Your task to perform on an android device: make emails show in primary in the gmail app Image 0: 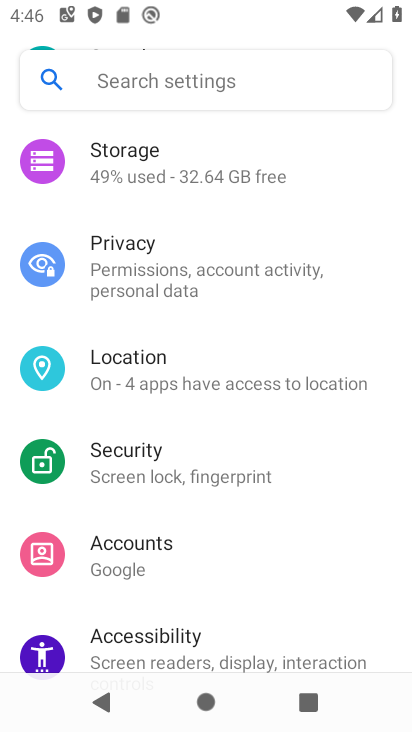
Step 0: press home button
Your task to perform on an android device: make emails show in primary in the gmail app Image 1: 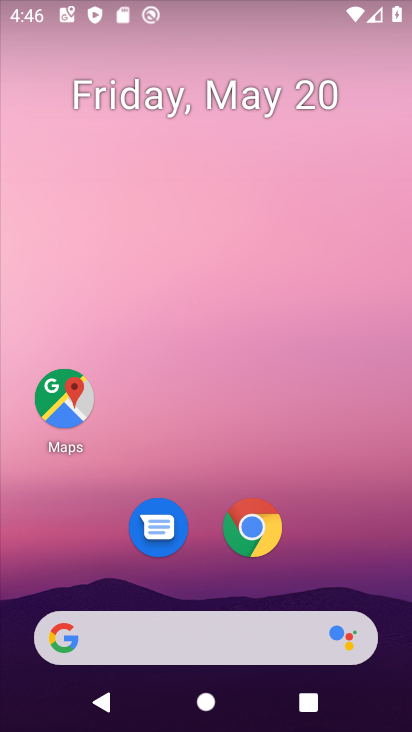
Step 1: drag from (138, 601) to (207, 134)
Your task to perform on an android device: make emails show in primary in the gmail app Image 2: 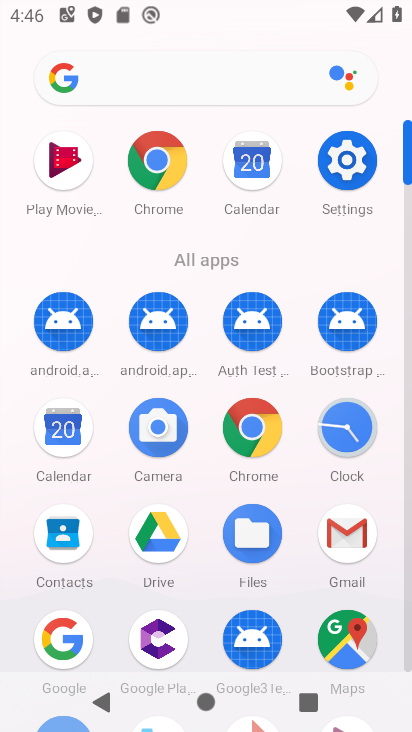
Step 2: click (336, 542)
Your task to perform on an android device: make emails show in primary in the gmail app Image 3: 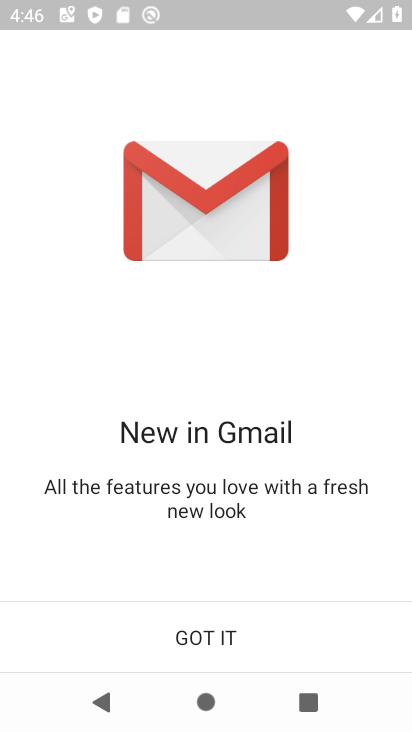
Step 3: click (193, 647)
Your task to perform on an android device: make emails show in primary in the gmail app Image 4: 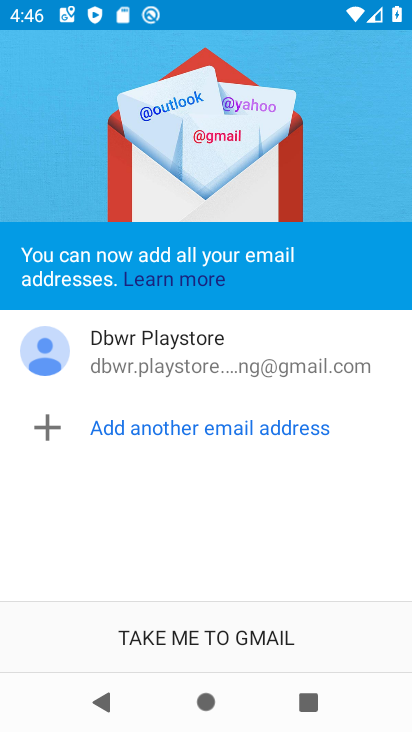
Step 4: click (189, 641)
Your task to perform on an android device: make emails show in primary in the gmail app Image 5: 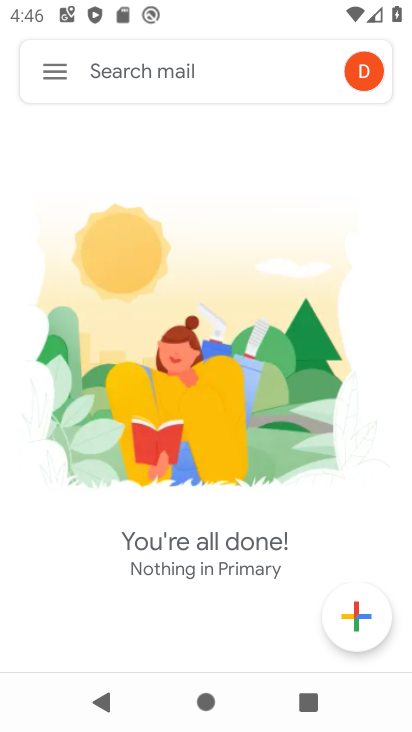
Step 5: click (63, 72)
Your task to perform on an android device: make emails show in primary in the gmail app Image 6: 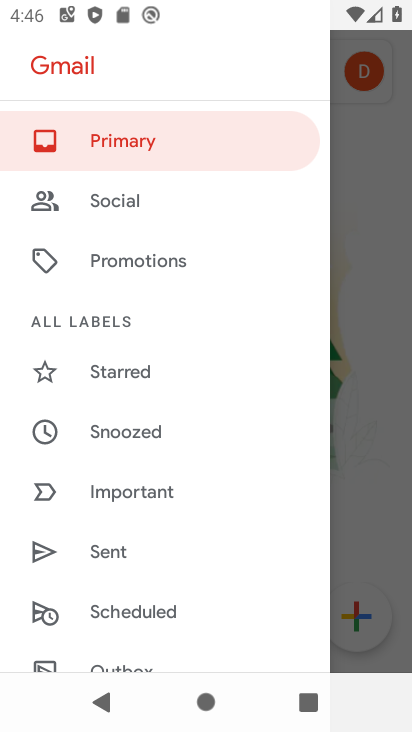
Step 6: drag from (138, 645) to (155, 307)
Your task to perform on an android device: make emails show in primary in the gmail app Image 7: 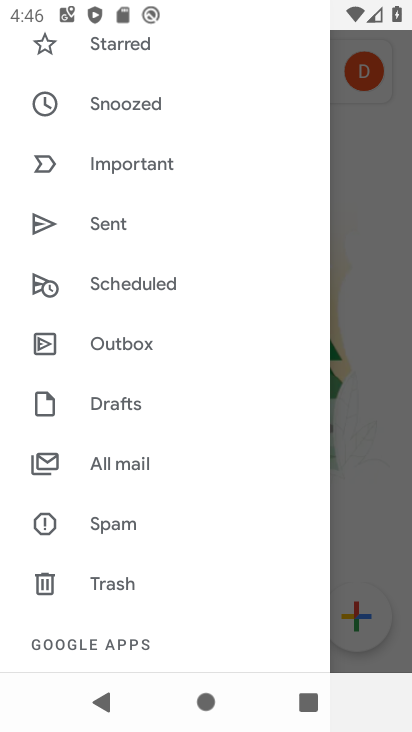
Step 7: drag from (141, 650) to (141, 383)
Your task to perform on an android device: make emails show in primary in the gmail app Image 8: 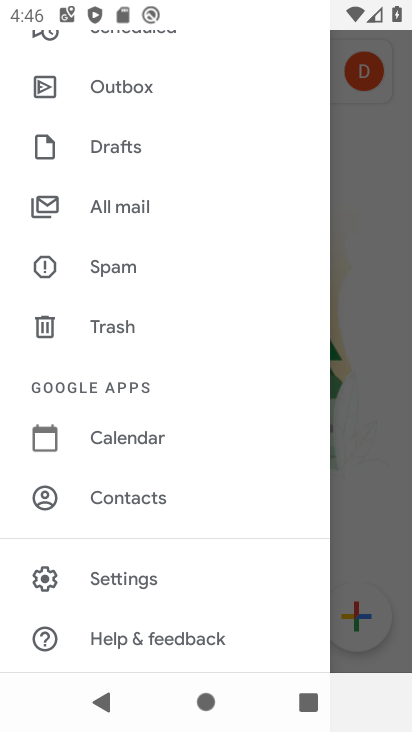
Step 8: click (135, 581)
Your task to perform on an android device: make emails show in primary in the gmail app Image 9: 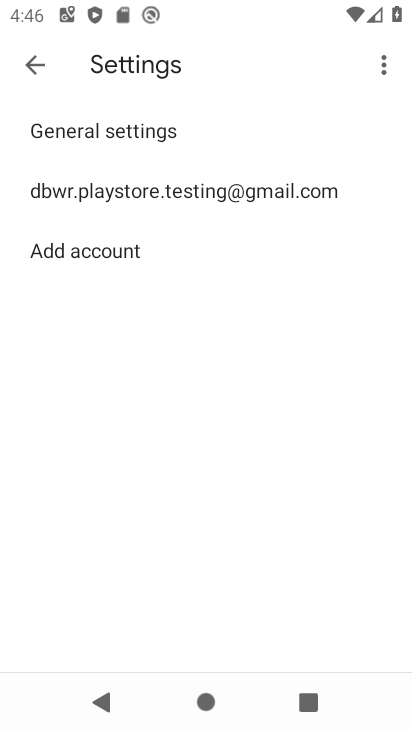
Step 9: click (110, 185)
Your task to perform on an android device: make emails show in primary in the gmail app Image 10: 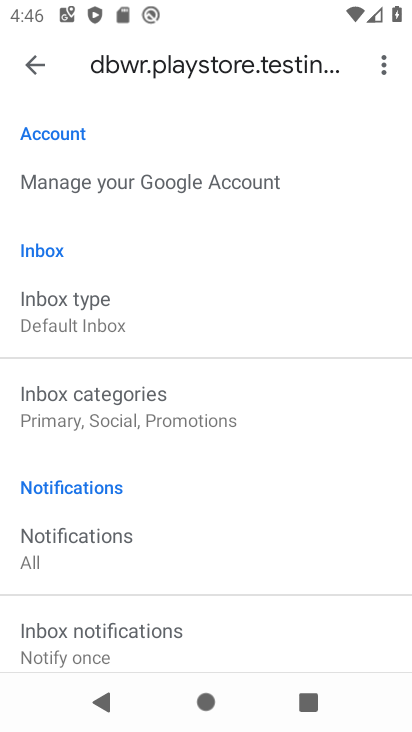
Step 10: click (102, 426)
Your task to perform on an android device: make emails show in primary in the gmail app Image 11: 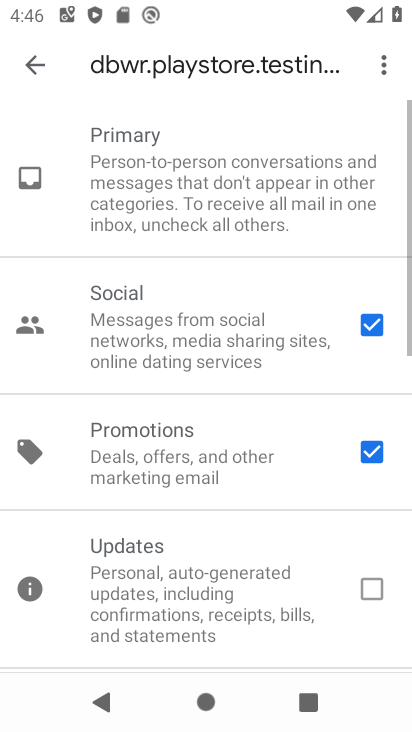
Step 11: click (369, 457)
Your task to perform on an android device: make emails show in primary in the gmail app Image 12: 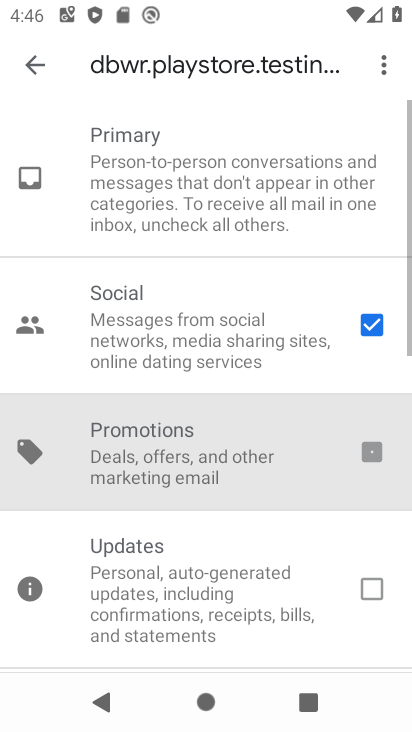
Step 12: click (377, 316)
Your task to perform on an android device: make emails show in primary in the gmail app Image 13: 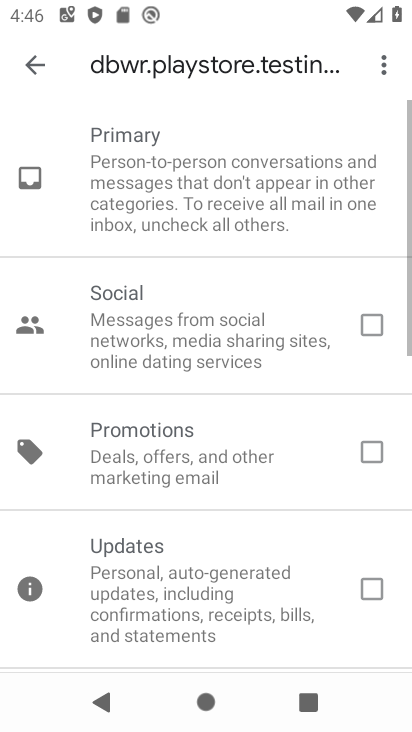
Step 13: click (34, 59)
Your task to perform on an android device: make emails show in primary in the gmail app Image 14: 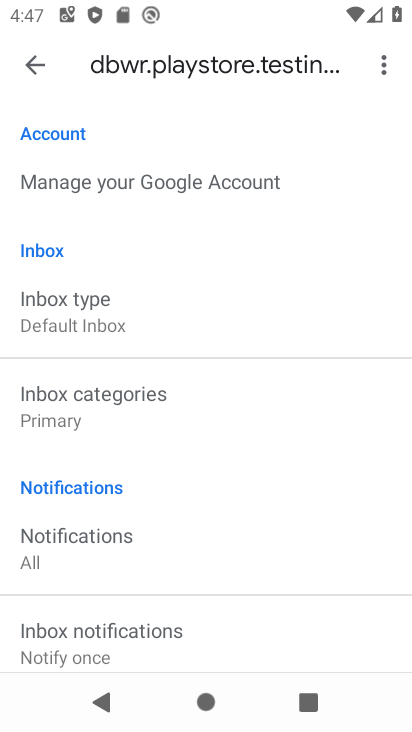
Step 14: task complete